Your task to perform on an android device: turn on improve location accuracy Image 0: 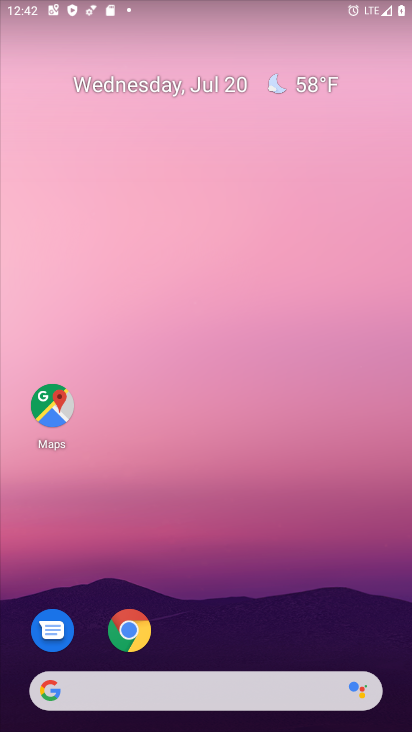
Step 0: drag from (227, 657) to (239, 180)
Your task to perform on an android device: turn on improve location accuracy Image 1: 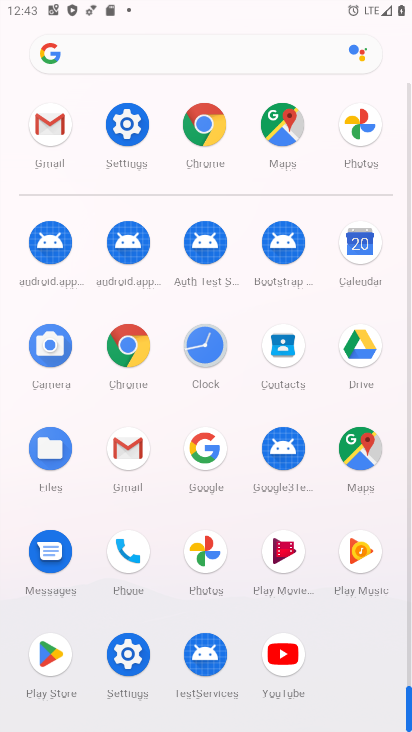
Step 1: click (119, 135)
Your task to perform on an android device: turn on improve location accuracy Image 2: 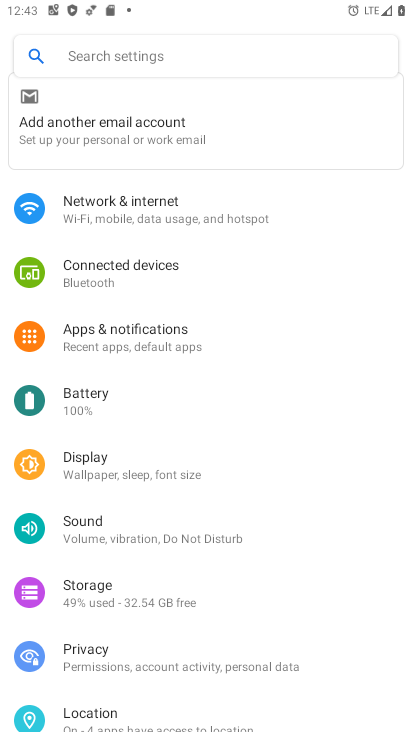
Step 2: drag from (111, 687) to (122, 417)
Your task to perform on an android device: turn on improve location accuracy Image 3: 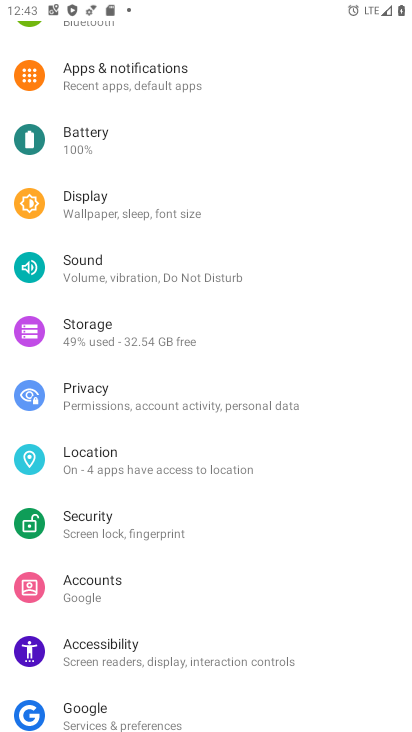
Step 3: drag from (204, 582) to (196, 398)
Your task to perform on an android device: turn on improve location accuracy Image 4: 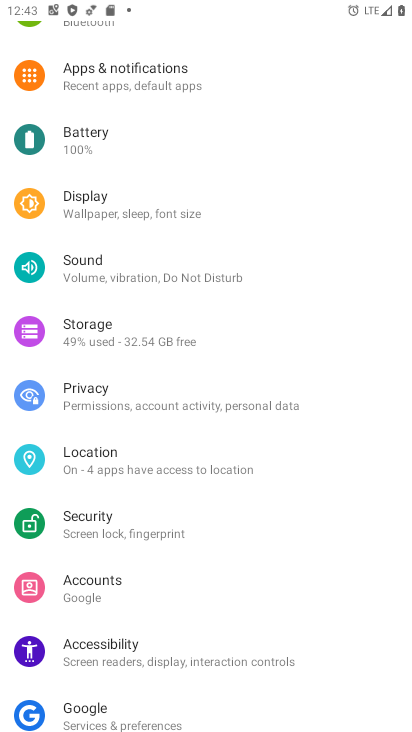
Step 4: click (148, 467)
Your task to perform on an android device: turn on improve location accuracy Image 5: 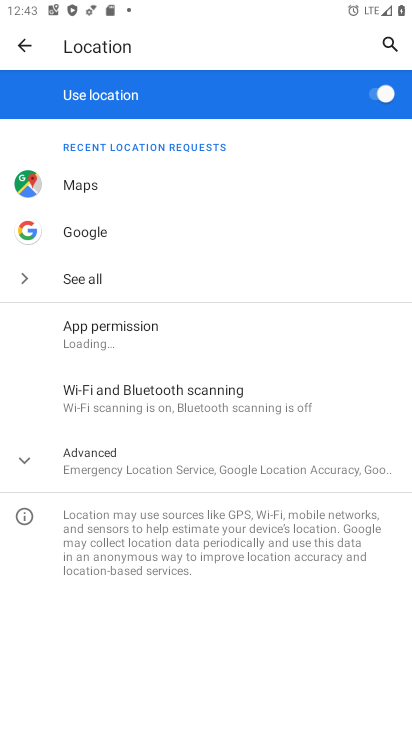
Step 5: click (188, 468)
Your task to perform on an android device: turn on improve location accuracy Image 6: 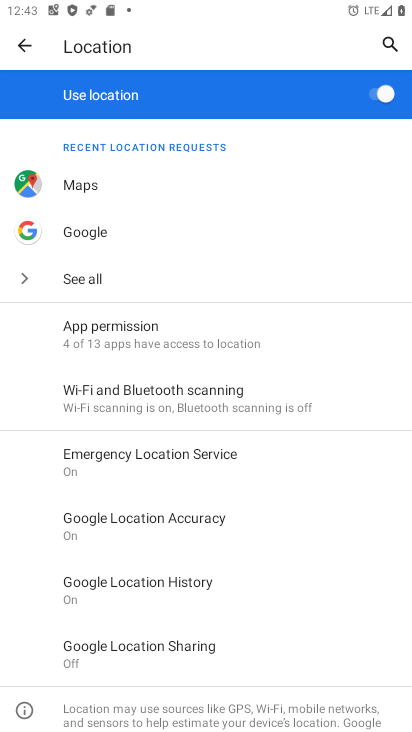
Step 6: click (209, 521)
Your task to perform on an android device: turn on improve location accuracy Image 7: 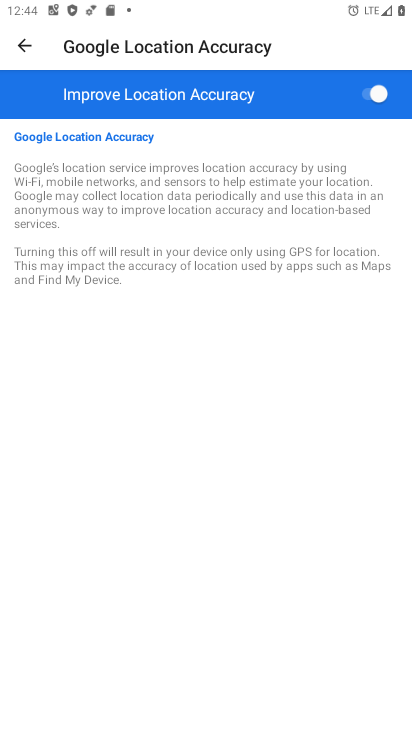
Step 7: task complete